Your task to perform on an android device: Open the calendar app, open the side menu, and click the "Day" option Image 0: 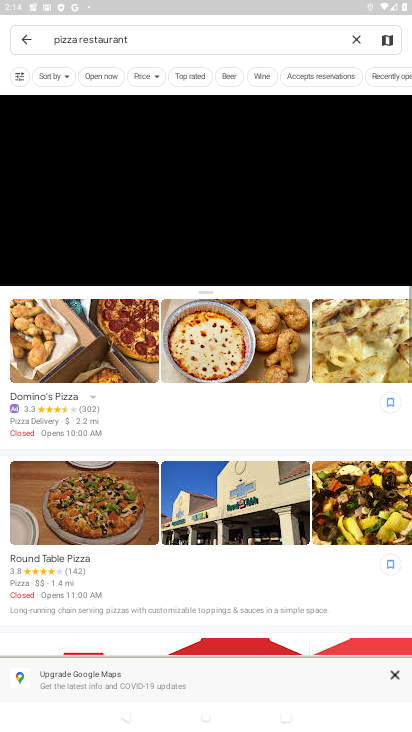
Step 0: press home button
Your task to perform on an android device: Open the calendar app, open the side menu, and click the "Day" option Image 1: 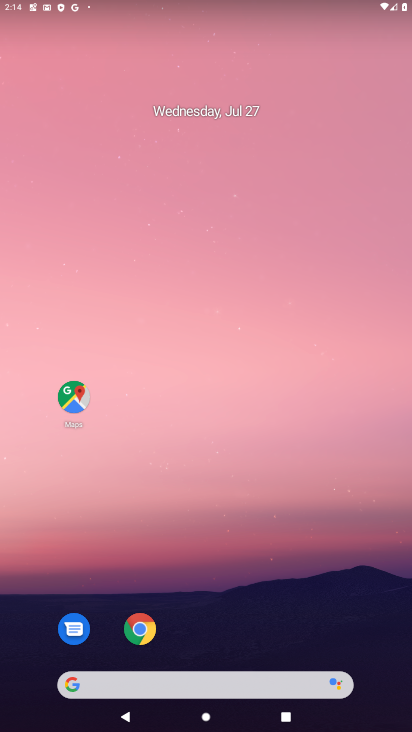
Step 1: drag from (274, 641) to (278, 76)
Your task to perform on an android device: Open the calendar app, open the side menu, and click the "Day" option Image 2: 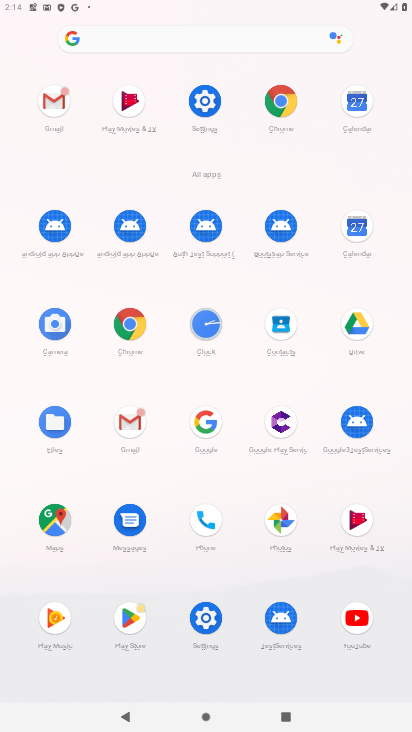
Step 2: click (214, 111)
Your task to perform on an android device: Open the calendar app, open the side menu, and click the "Day" option Image 3: 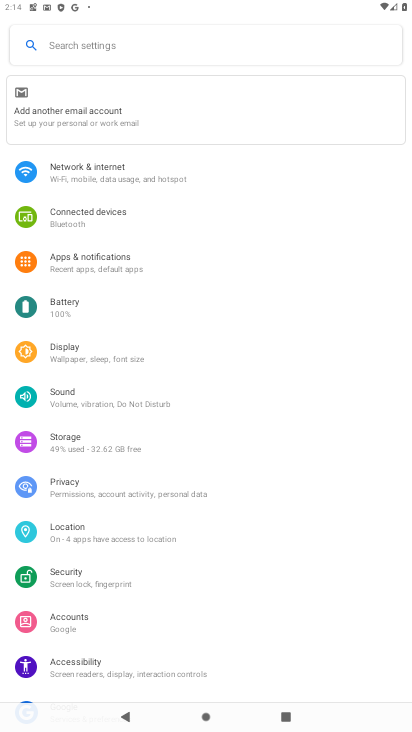
Step 3: task complete